Your task to perform on an android device: Open wifi settings Image 0: 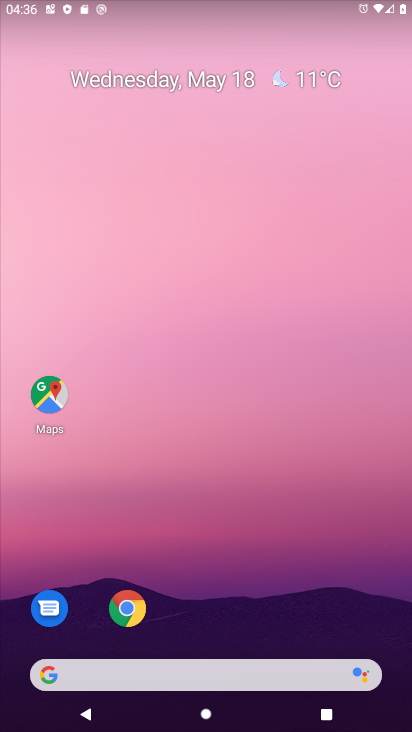
Step 0: drag from (158, 8) to (146, 525)
Your task to perform on an android device: Open wifi settings Image 1: 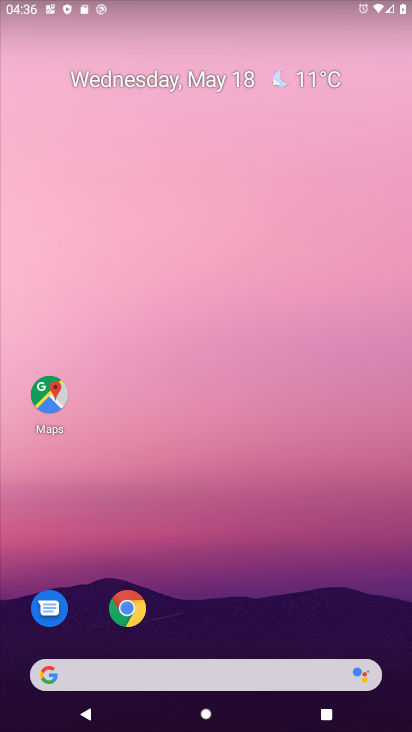
Step 1: drag from (119, 14) to (137, 551)
Your task to perform on an android device: Open wifi settings Image 2: 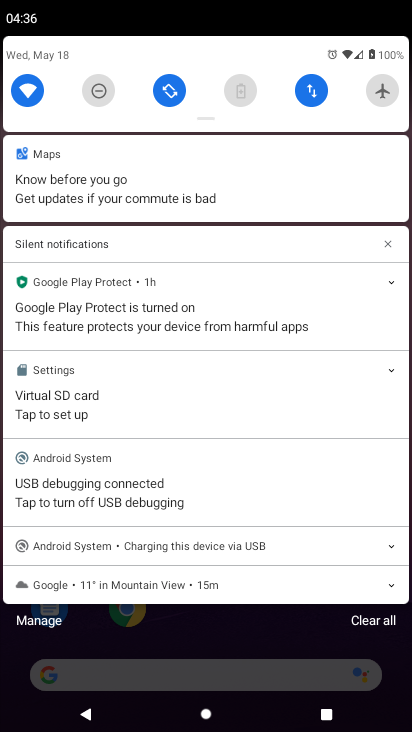
Step 2: click (19, 87)
Your task to perform on an android device: Open wifi settings Image 3: 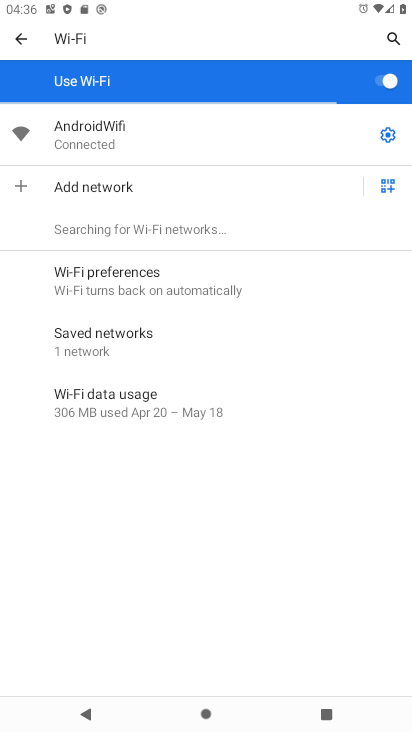
Step 3: task complete